Your task to perform on an android device: turn off javascript in the chrome app Image 0: 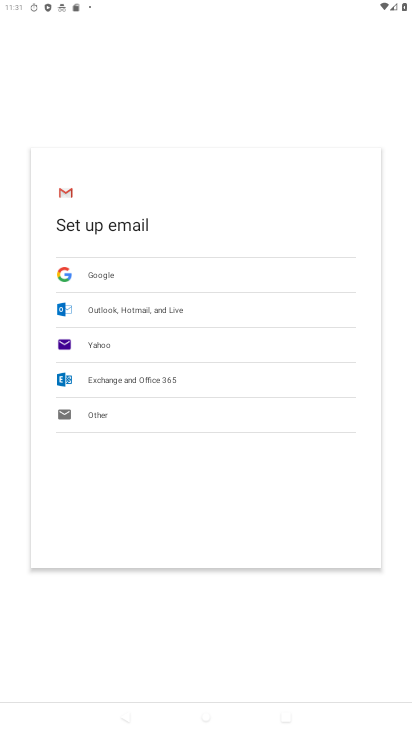
Step 0: press home button
Your task to perform on an android device: turn off javascript in the chrome app Image 1: 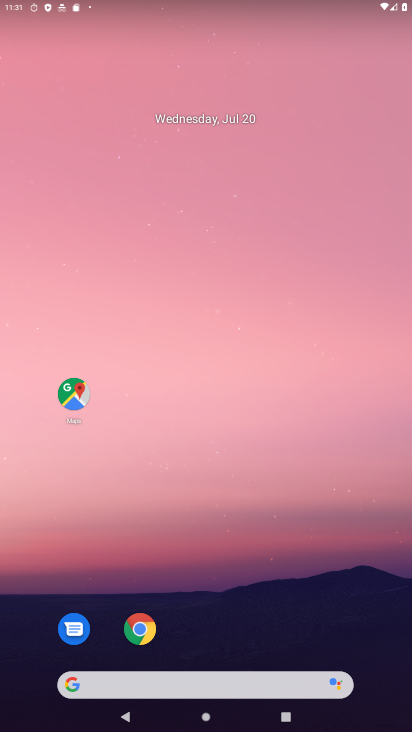
Step 1: drag from (168, 682) to (265, 22)
Your task to perform on an android device: turn off javascript in the chrome app Image 2: 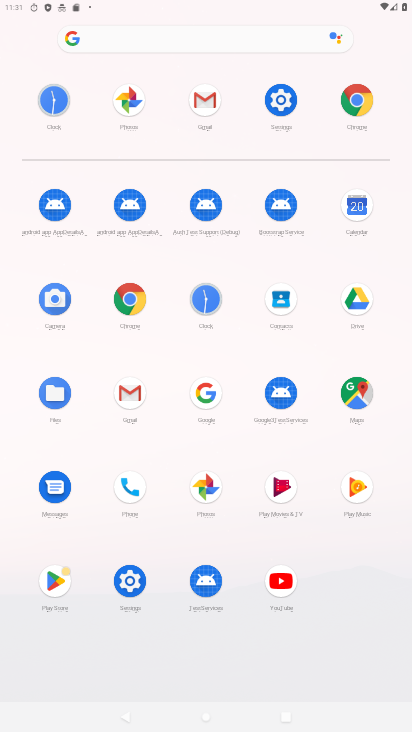
Step 2: click (143, 293)
Your task to perform on an android device: turn off javascript in the chrome app Image 3: 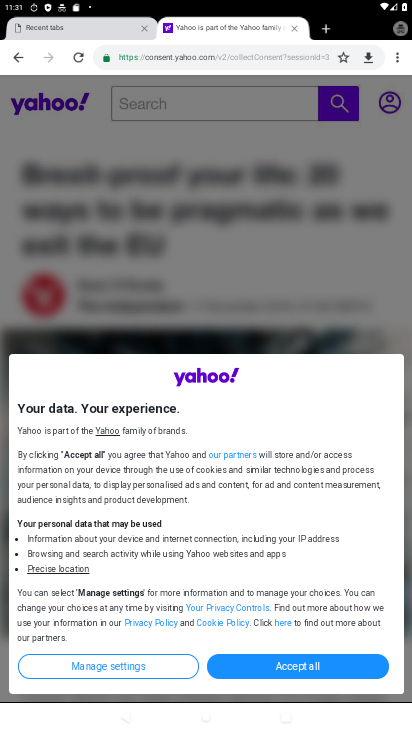
Step 3: drag from (401, 46) to (302, 371)
Your task to perform on an android device: turn off javascript in the chrome app Image 4: 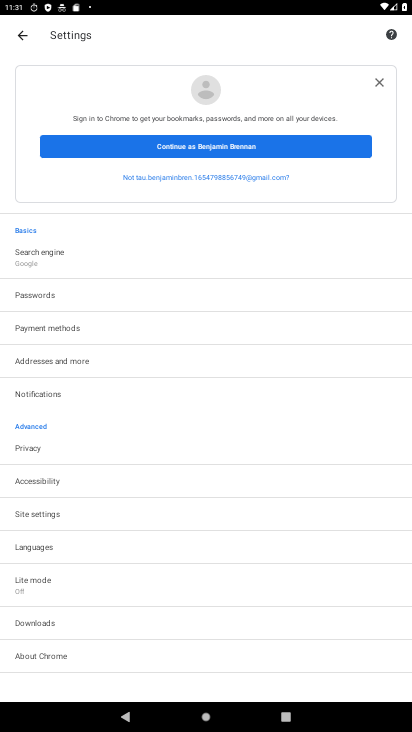
Step 4: click (65, 517)
Your task to perform on an android device: turn off javascript in the chrome app Image 5: 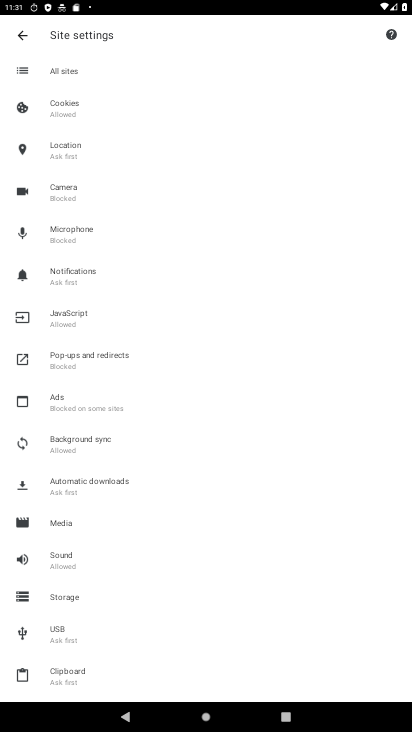
Step 5: click (70, 311)
Your task to perform on an android device: turn off javascript in the chrome app Image 6: 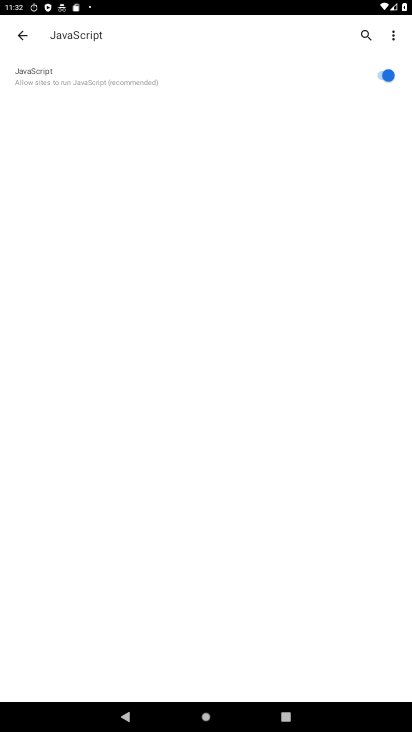
Step 6: click (389, 69)
Your task to perform on an android device: turn off javascript in the chrome app Image 7: 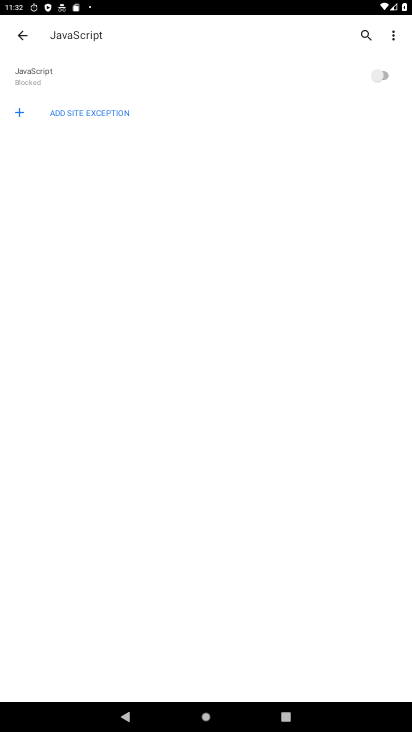
Step 7: task complete